Your task to perform on an android device: read, delete, or share a saved page in the chrome app Image 0: 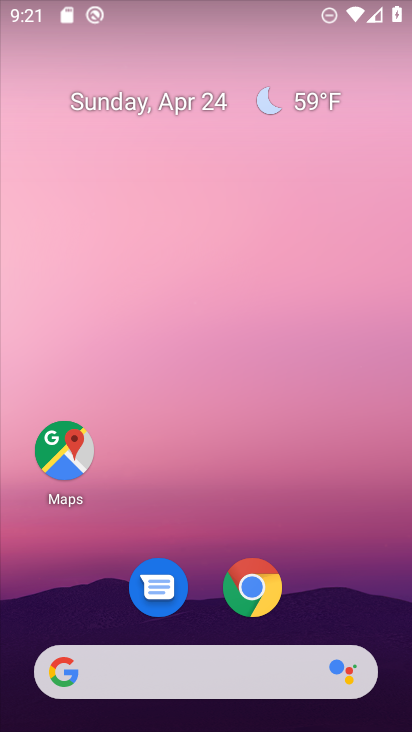
Step 0: click (250, 585)
Your task to perform on an android device: read, delete, or share a saved page in the chrome app Image 1: 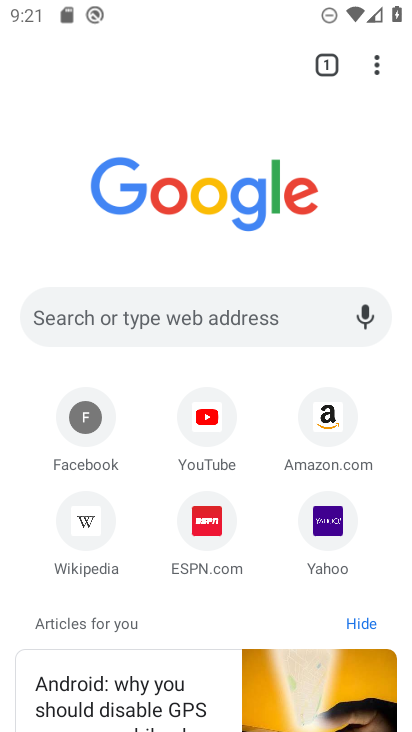
Step 1: click (378, 59)
Your task to perform on an android device: read, delete, or share a saved page in the chrome app Image 2: 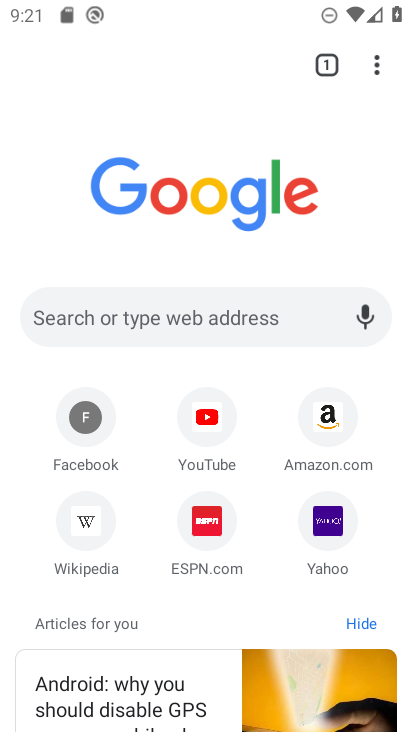
Step 2: click (376, 69)
Your task to perform on an android device: read, delete, or share a saved page in the chrome app Image 3: 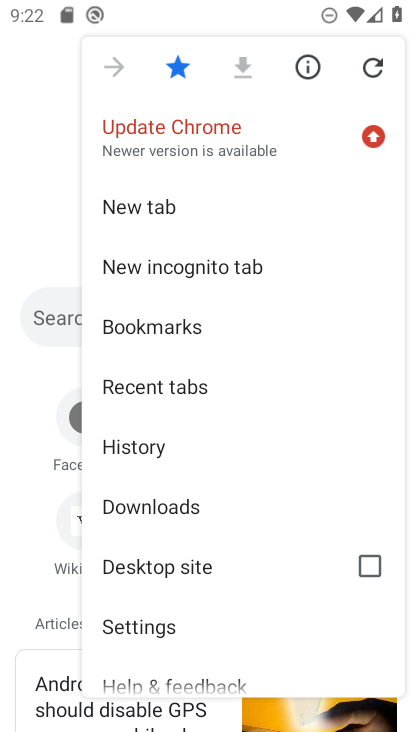
Step 3: click (167, 504)
Your task to perform on an android device: read, delete, or share a saved page in the chrome app Image 4: 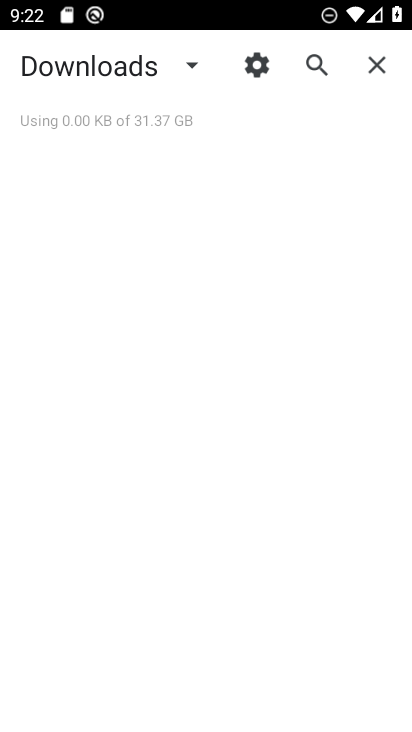
Step 4: click (196, 66)
Your task to perform on an android device: read, delete, or share a saved page in the chrome app Image 5: 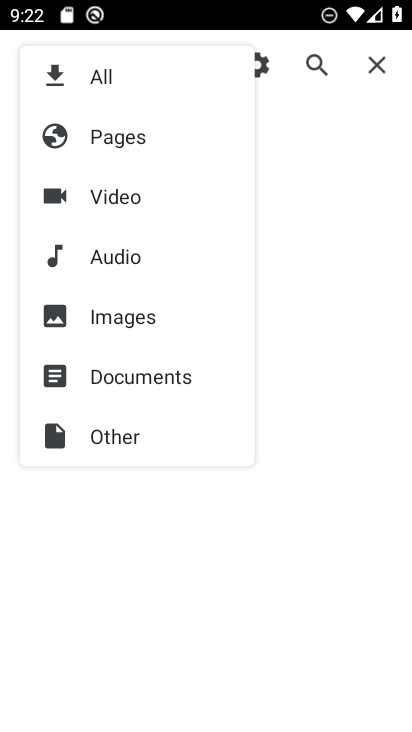
Step 5: click (146, 124)
Your task to perform on an android device: read, delete, or share a saved page in the chrome app Image 6: 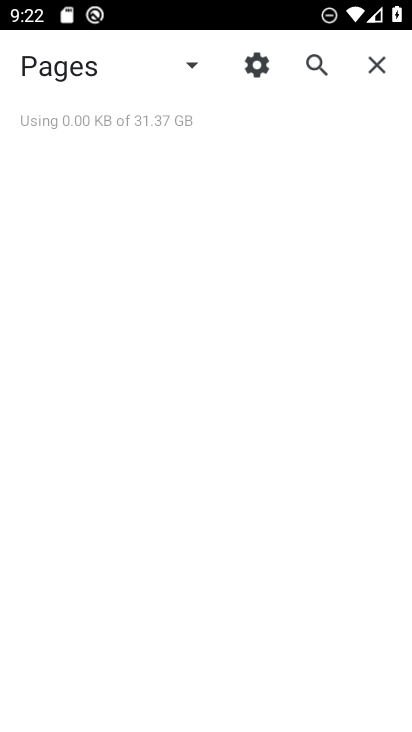
Step 6: click (200, 61)
Your task to perform on an android device: read, delete, or share a saved page in the chrome app Image 7: 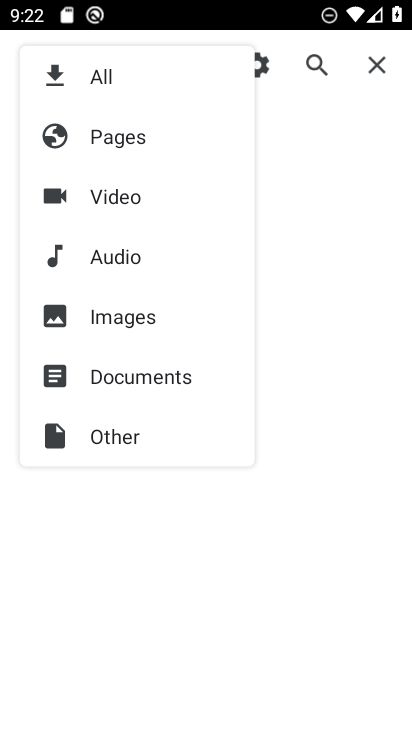
Step 7: click (118, 74)
Your task to perform on an android device: read, delete, or share a saved page in the chrome app Image 8: 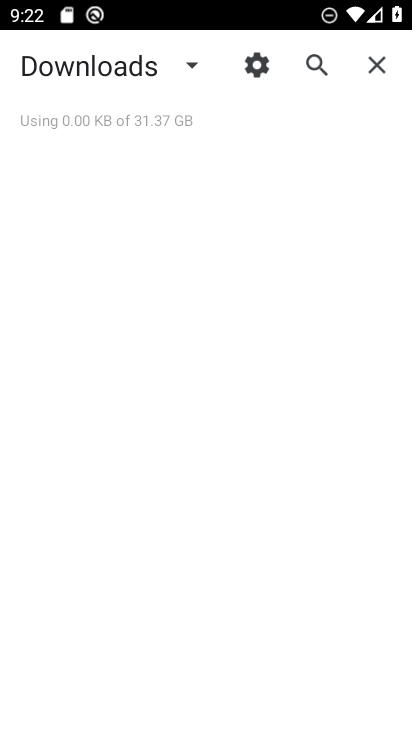
Step 8: task complete